Your task to perform on an android device: Go to Google maps Image 0: 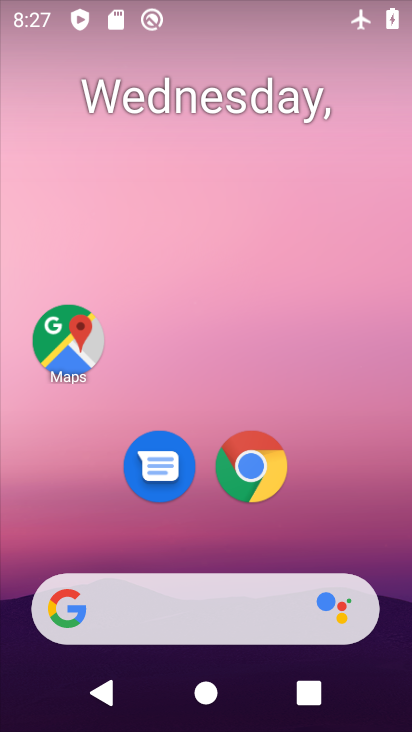
Step 0: drag from (335, 540) to (368, 53)
Your task to perform on an android device: Go to Google maps Image 1: 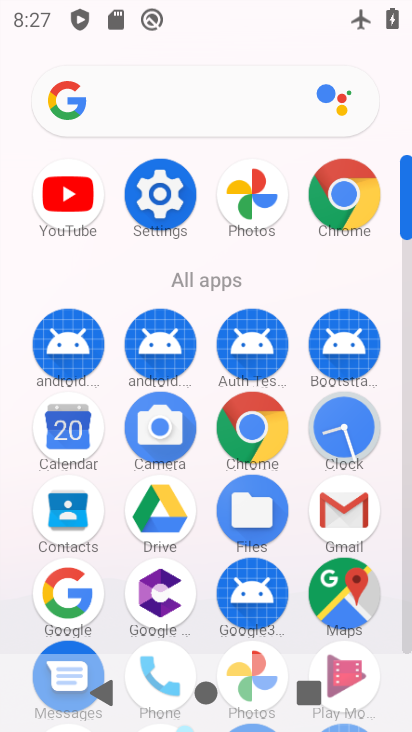
Step 1: click (332, 614)
Your task to perform on an android device: Go to Google maps Image 2: 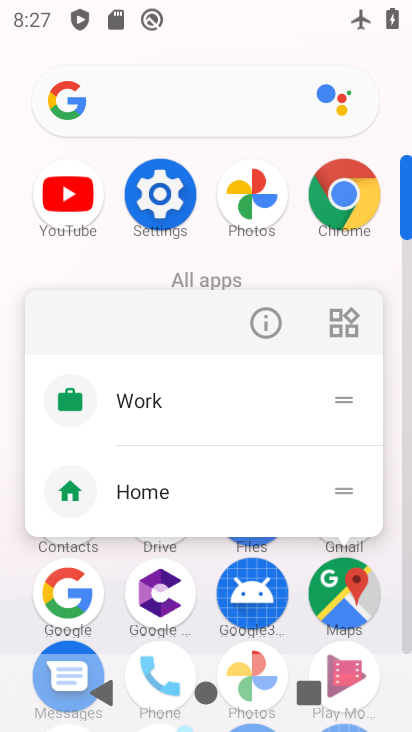
Step 2: click (332, 614)
Your task to perform on an android device: Go to Google maps Image 3: 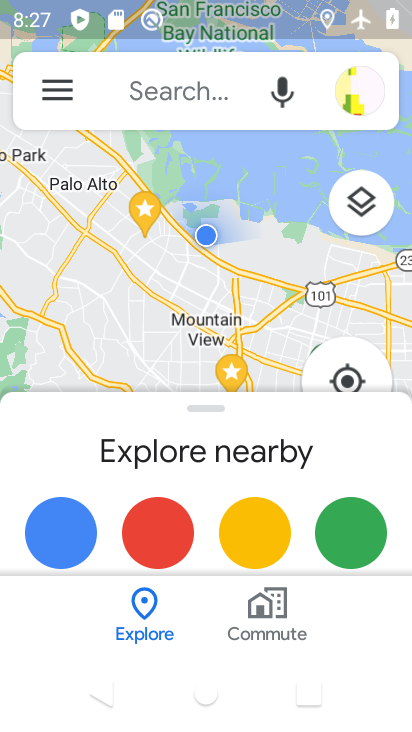
Step 3: task complete